Your task to perform on an android device: delete browsing data in the chrome app Image 0: 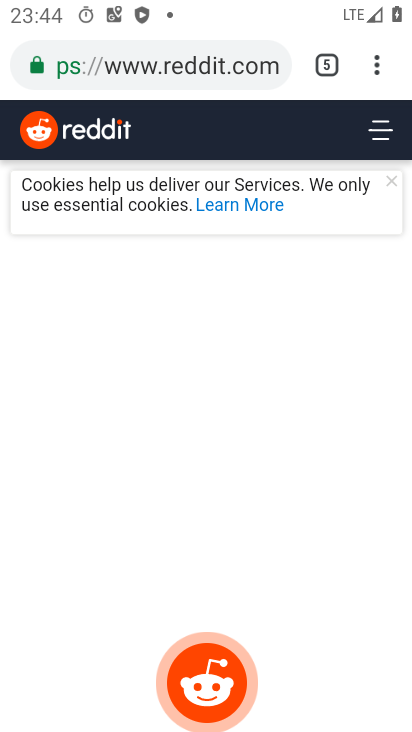
Step 0: press home button
Your task to perform on an android device: delete browsing data in the chrome app Image 1: 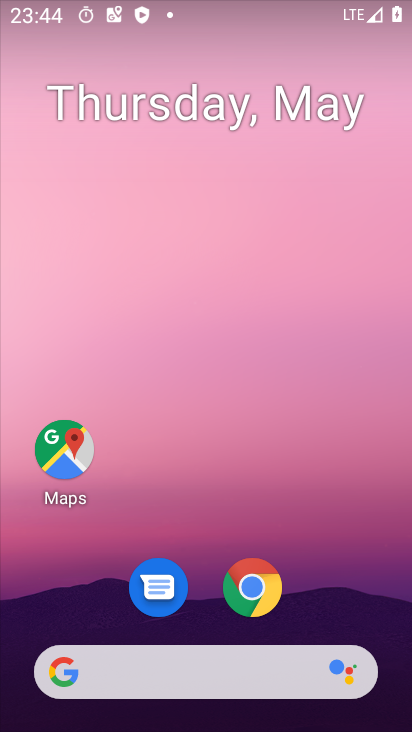
Step 1: click (259, 597)
Your task to perform on an android device: delete browsing data in the chrome app Image 2: 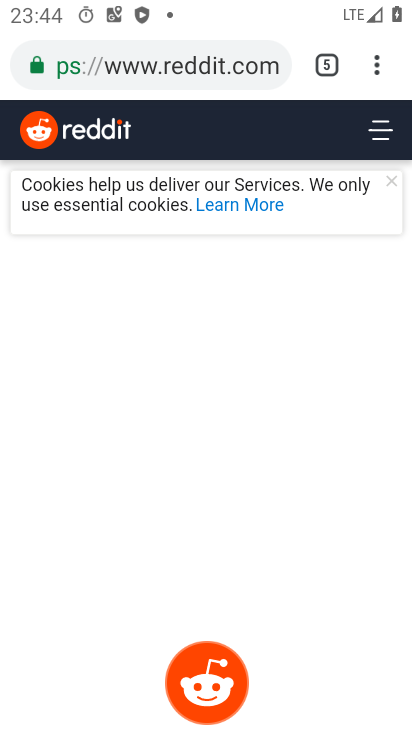
Step 2: click (377, 69)
Your task to perform on an android device: delete browsing data in the chrome app Image 3: 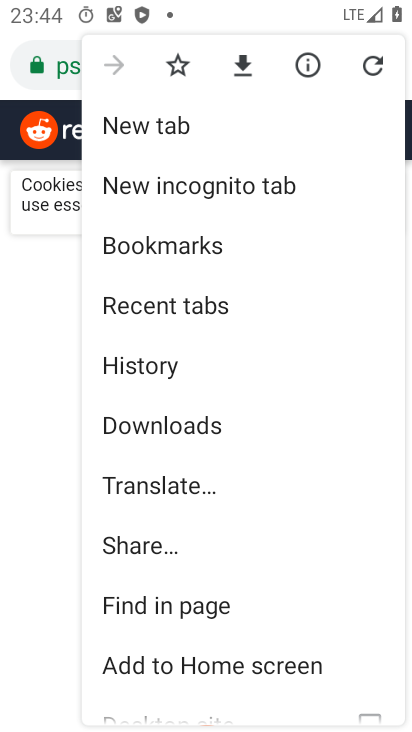
Step 3: drag from (268, 648) to (257, 124)
Your task to perform on an android device: delete browsing data in the chrome app Image 4: 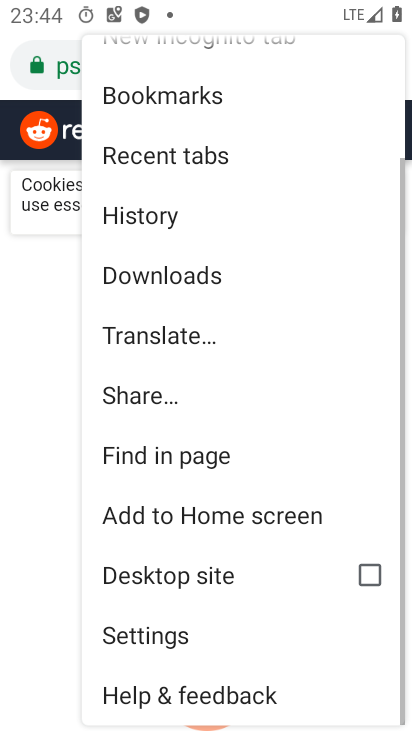
Step 4: click (136, 634)
Your task to perform on an android device: delete browsing data in the chrome app Image 5: 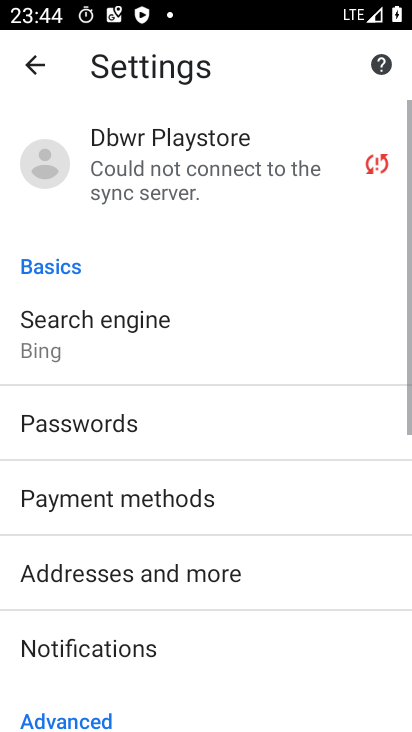
Step 5: drag from (136, 634) to (142, 203)
Your task to perform on an android device: delete browsing data in the chrome app Image 6: 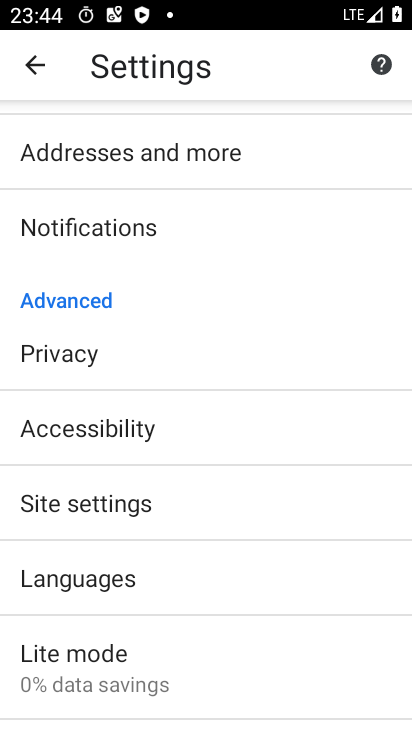
Step 6: click (84, 350)
Your task to perform on an android device: delete browsing data in the chrome app Image 7: 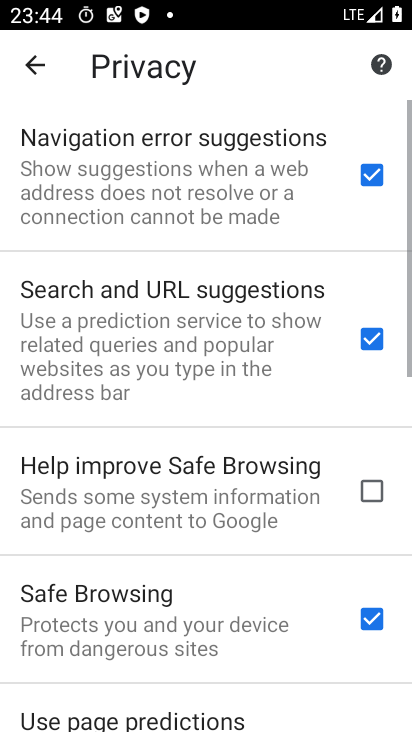
Step 7: drag from (131, 585) to (126, 88)
Your task to perform on an android device: delete browsing data in the chrome app Image 8: 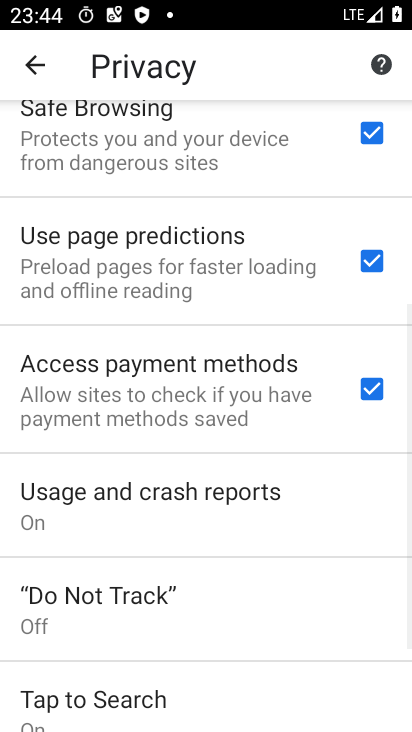
Step 8: drag from (98, 597) to (99, 82)
Your task to perform on an android device: delete browsing data in the chrome app Image 9: 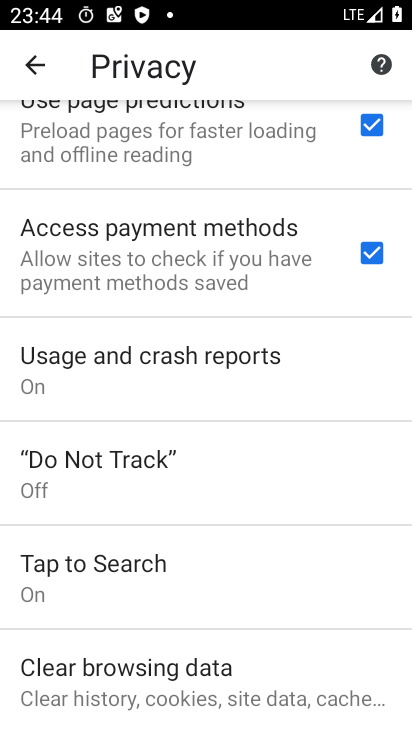
Step 9: click (52, 665)
Your task to perform on an android device: delete browsing data in the chrome app Image 10: 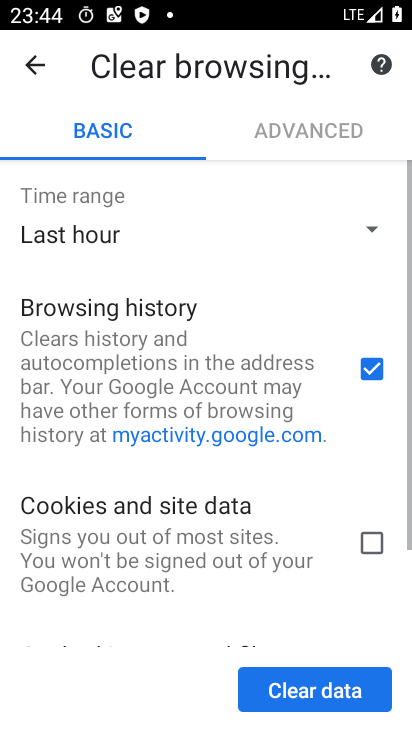
Step 10: drag from (137, 509) to (125, 199)
Your task to perform on an android device: delete browsing data in the chrome app Image 11: 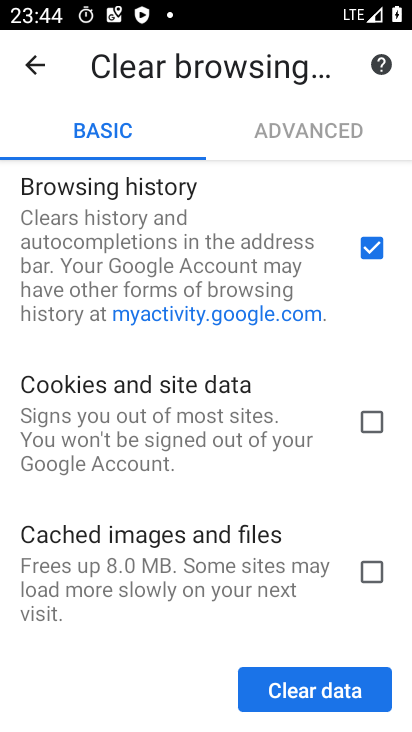
Step 11: click (274, 675)
Your task to perform on an android device: delete browsing data in the chrome app Image 12: 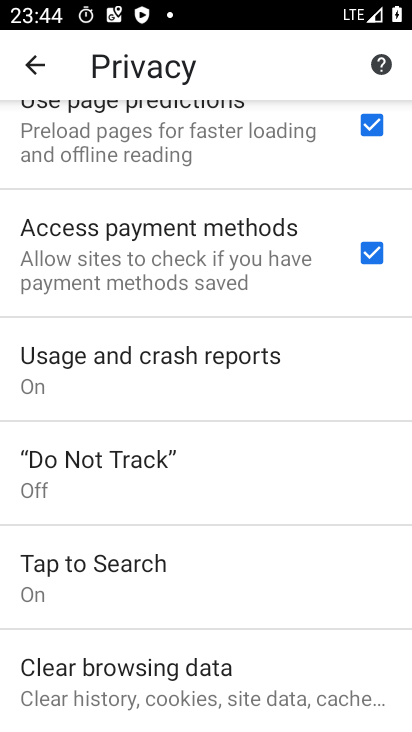
Step 12: task complete